Your task to perform on an android device: allow notifications from all sites in the chrome app Image 0: 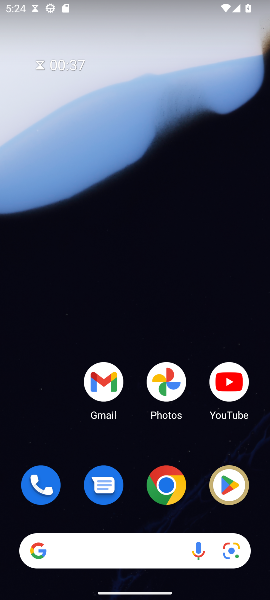
Step 0: click (175, 497)
Your task to perform on an android device: allow notifications from all sites in the chrome app Image 1: 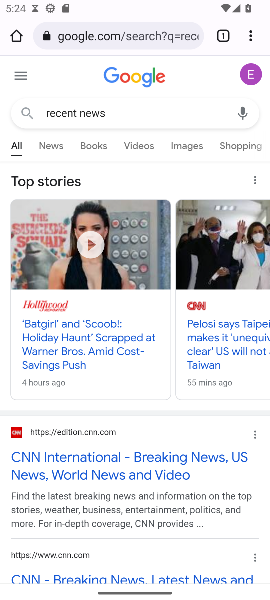
Step 1: click (249, 31)
Your task to perform on an android device: allow notifications from all sites in the chrome app Image 2: 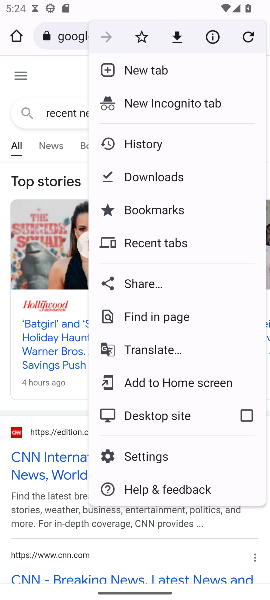
Step 2: click (147, 455)
Your task to perform on an android device: allow notifications from all sites in the chrome app Image 3: 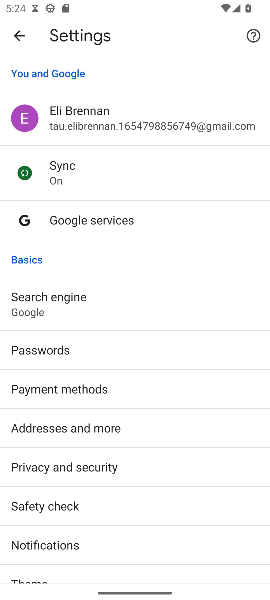
Step 3: drag from (61, 514) to (86, 431)
Your task to perform on an android device: allow notifications from all sites in the chrome app Image 4: 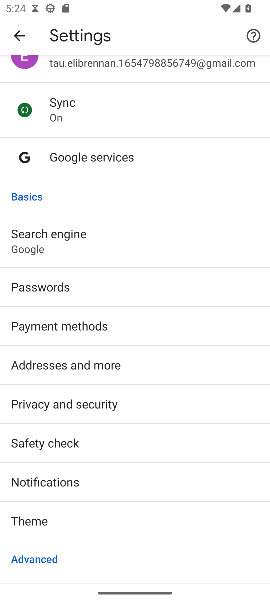
Step 4: click (42, 489)
Your task to perform on an android device: allow notifications from all sites in the chrome app Image 5: 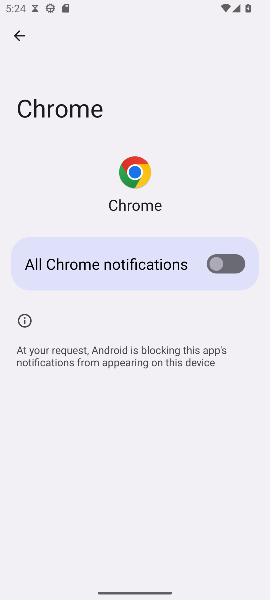
Step 5: click (233, 261)
Your task to perform on an android device: allow notifications from all sites in the chrome app Image 6: 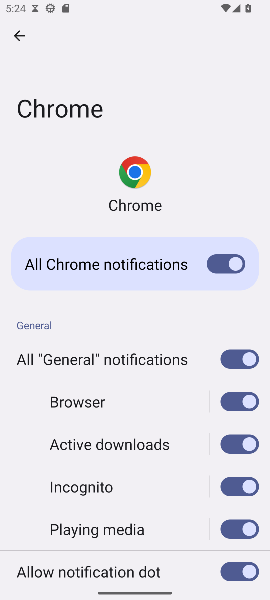
Step 6: task complete